Your task to perform on an android device: turn off translation in the chrome app Image 0: 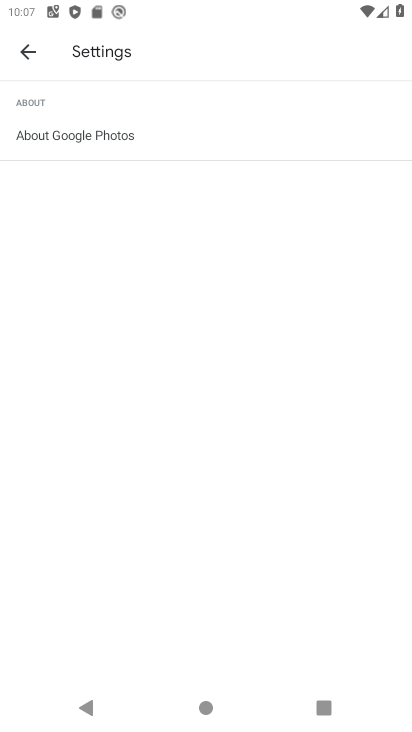
Step 0: press home button
Your task to perform on an android device: turn off translation in the chrome app Image 1: 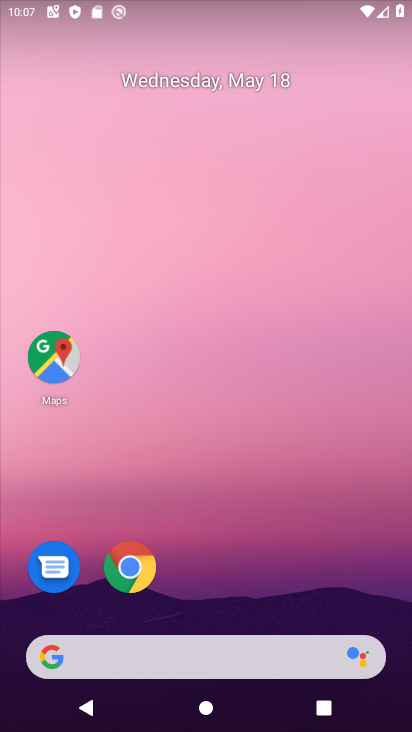
Step 1: drag from (258, 623) to (290, 194)
Your task to perform on an android device: turn off translation in the chrome app Image 2: 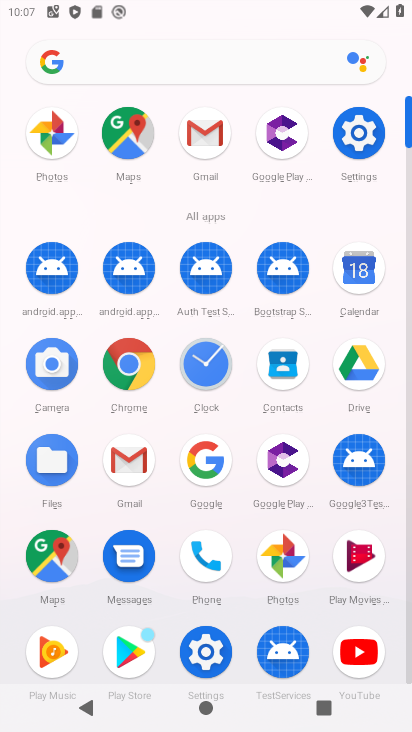
Step 2: click (117, 350)
Your task to perform on an android device: turn off translation in the chrome app Image 3: 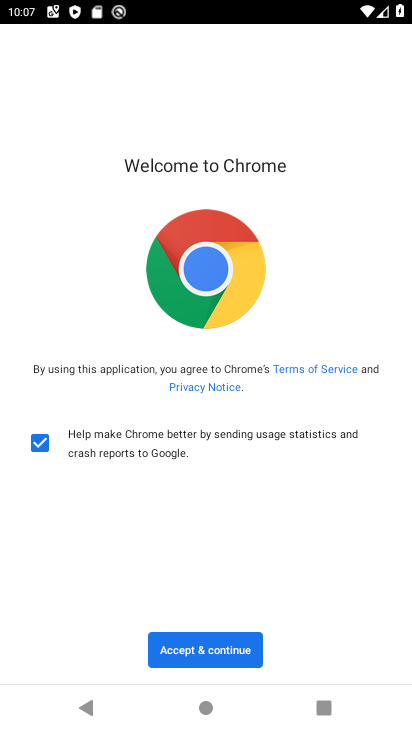
Step 3: click (197, 679)
Your task to perform on an android device: turn off translation in the chrome app Image 4: 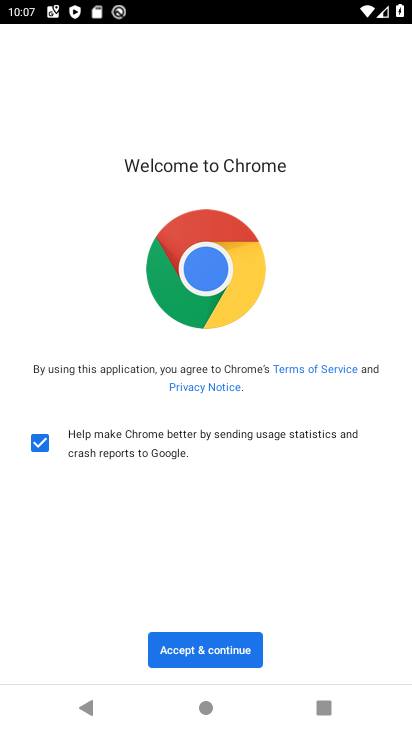
Step 4: click (199, 656)
Your task to perform on an android device: turn off translation in the chrome app Image 5: 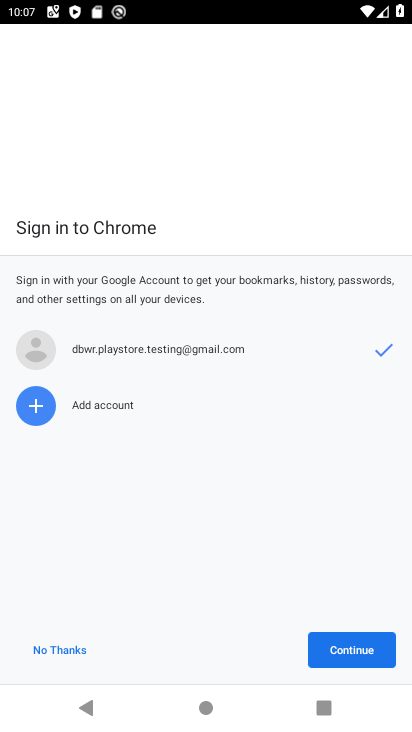
Step 5: click (334, 637)
Your task to perform on an android device: turn off translation in the chrome app Image 6: 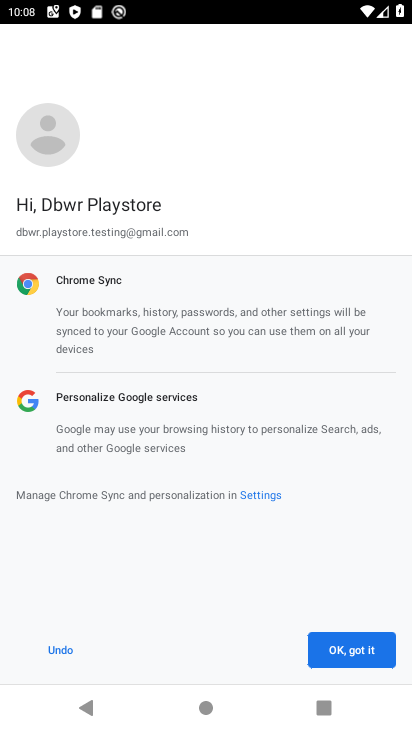
Step 6: click (367, 649)
Your task to perform on an android device: turn off translation in the chrome app Image 7: 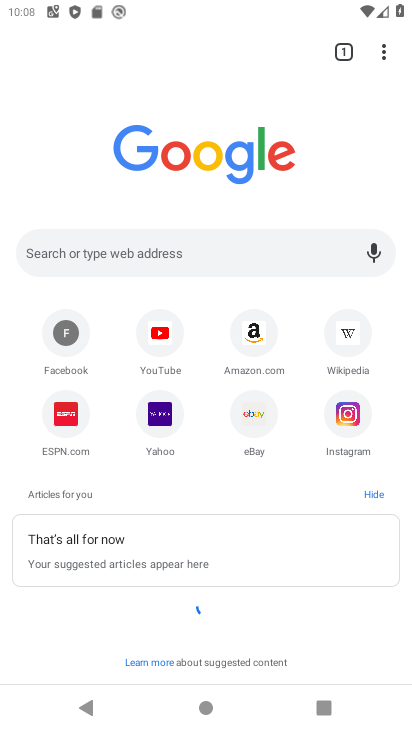
Step 7: click (376, 68)
Your task to perform on an android device: turn off translation in the chrome app Image 8: 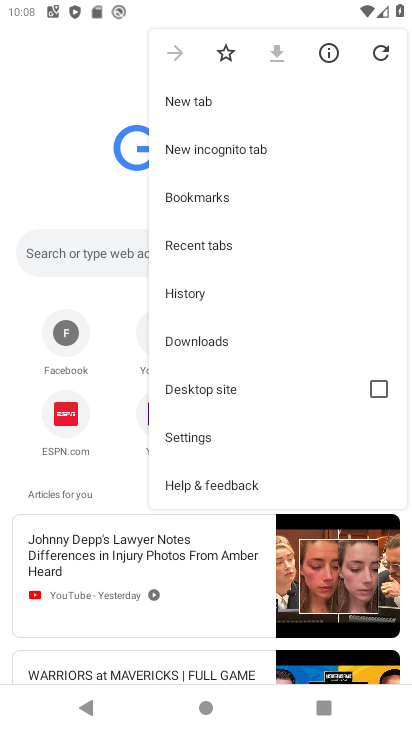
Step 8: click (206, 440)
Your task to perform on an android device: turn off translation in the chrome app Image 9: 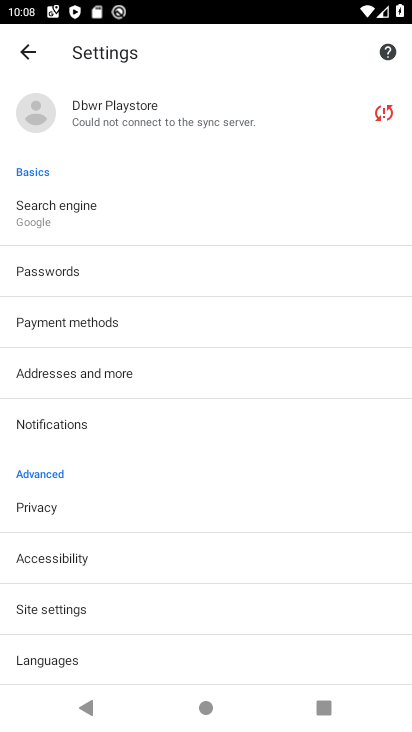
Step 9: click (56, 665)
Your task to perform on an android device: turn off translation in the chrome app Image 10: 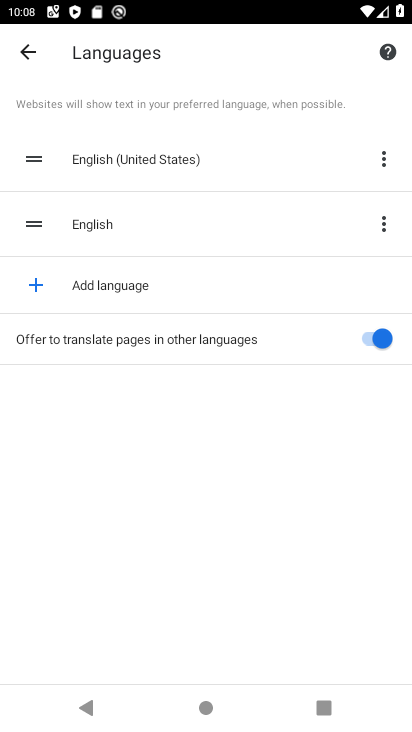
Step 10: click (292, 349)
Your task to perform on an android device: turn off translation in the chrome app Image 11: 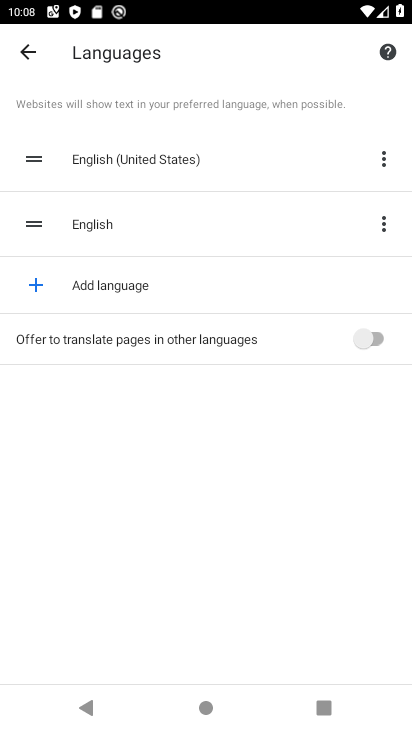
Step 11: task complete